Your task to perform on an android device: open chrome and create a bookmark for the current page Image 0: 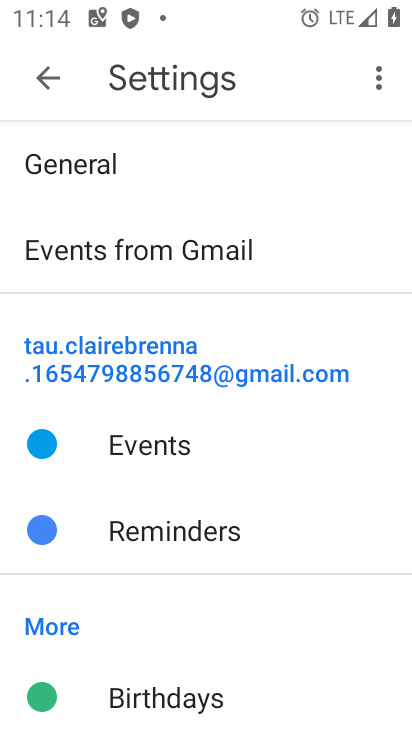
Step 0: press home button
Your task to perform on an android device: open chrome and create a bookmark for the current page Image 1: 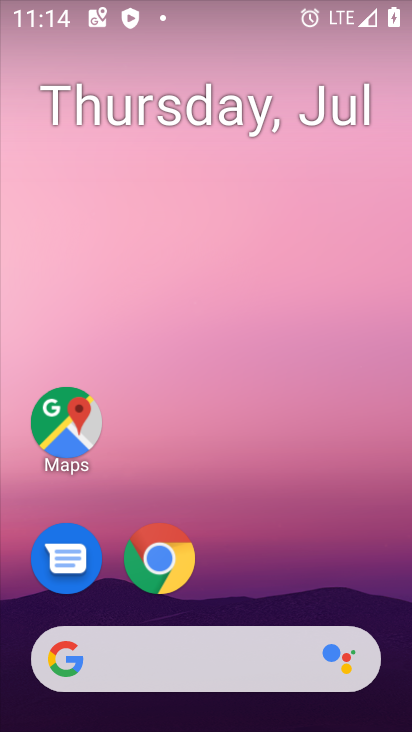
Step 1: drag from (374, 563) to (396, 57)
Your task to perform on an android device: open chrome and create a bookmark for the current page Image 2: 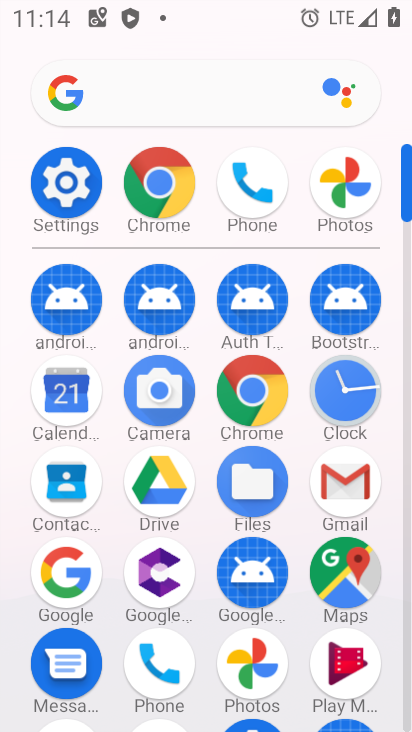
Step 2: click (261, 390)
Your task to perform on an android device: open chrome and create a bookmark for the current page Image 3: 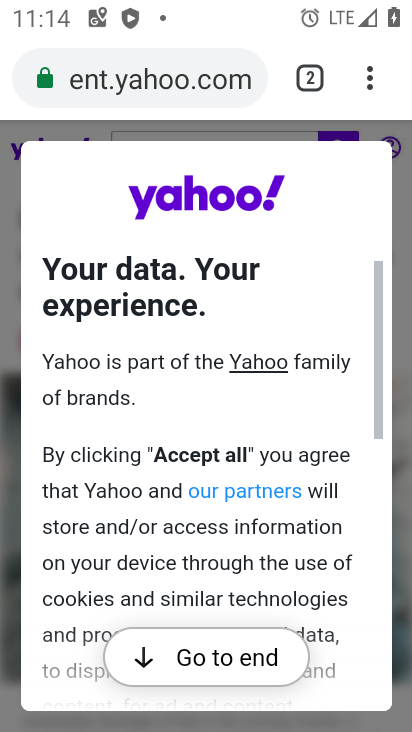
Step 3: click (372, 82)
Your task to perform on an android device: open chrome and create a bookmark for the current page Image 4: 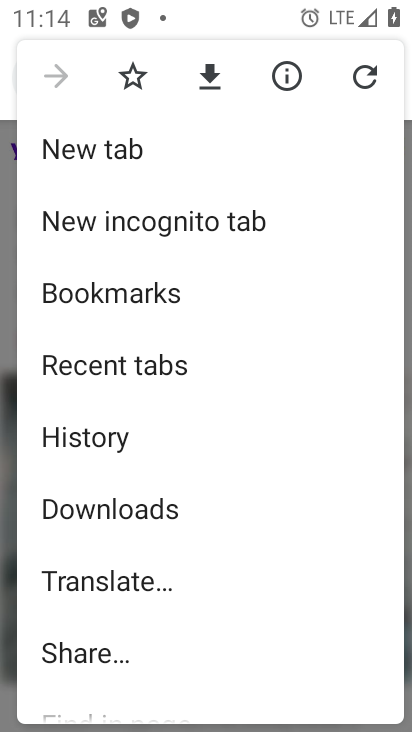
Step 4: click (130, 76)
Your task to perform on an android device: open chrome and create a bookmark for the current page Image 5: 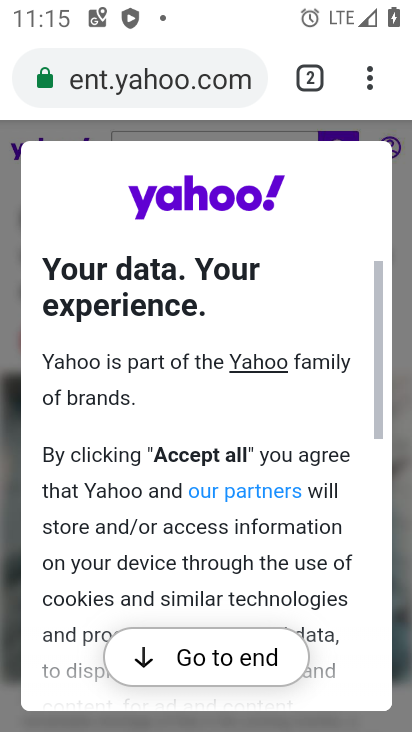
Step 5: task complete